Your task to perform on an android device: Play the last video I watched on Youtube Image 0: 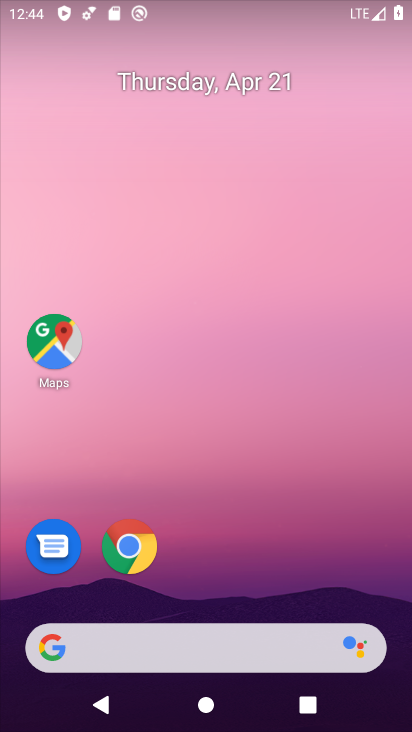
Step 0: drag from (310, 557) to (347, 151)
Your task to perform on an android device: Play the last video I watched on Youtube Image 1: 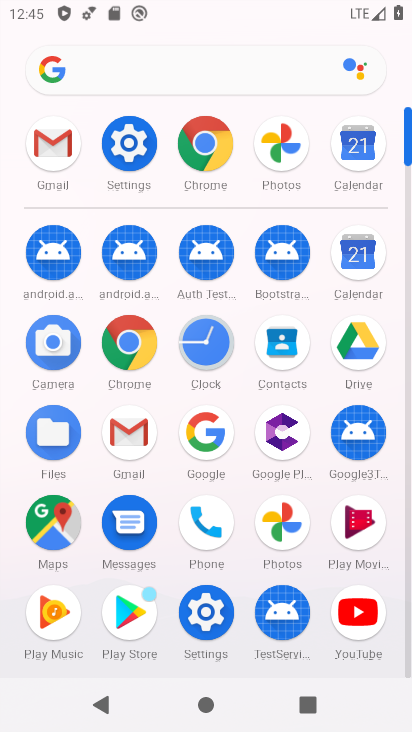
Step 1: click (371, 630)
Your task to perform on an android device: Play the last video I watched on Youtube Image 2: 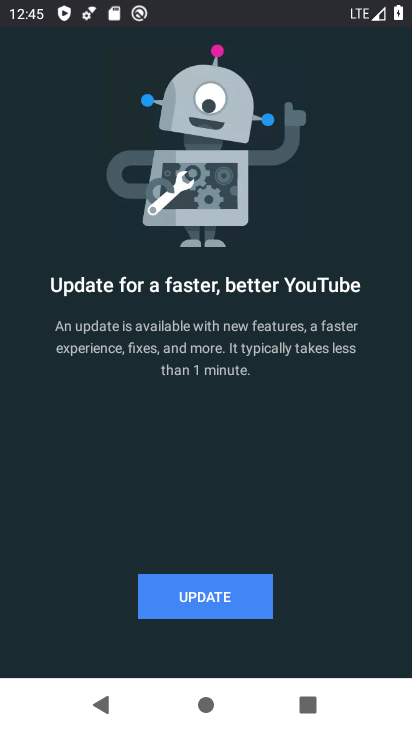
Step 2: click (244, 603)
Your task to perform on an android device: Play the last video I watched on Youtube Image 3: 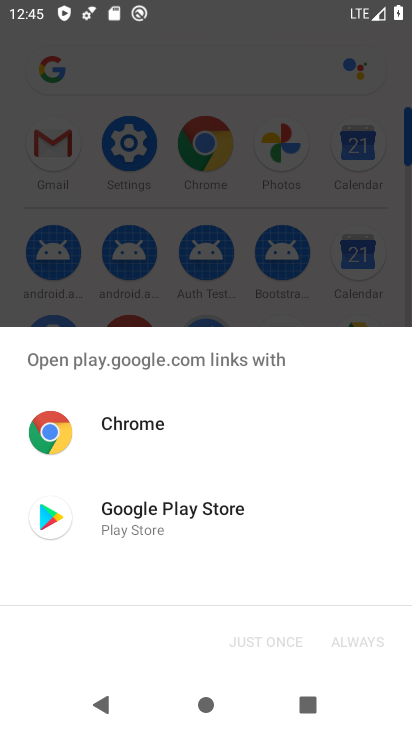
Step 3: click (97, 526)
Your task to perform on an android device: Play the last video I watched on Youtube Image 4: 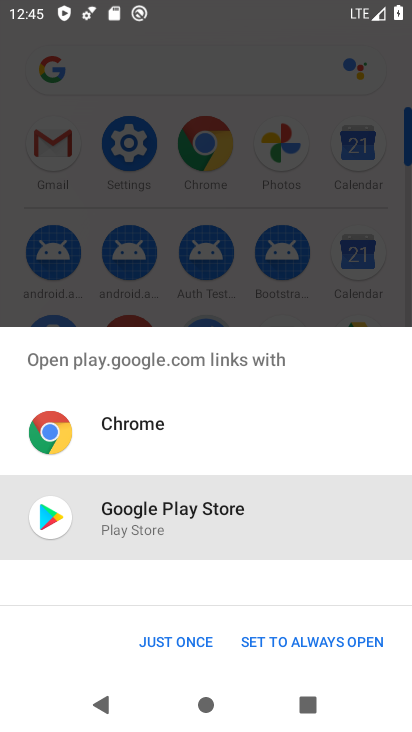
Step 4: click (165, 643)
Your task to perform on an android device: Play the last video I watched on Youtube Image 5: 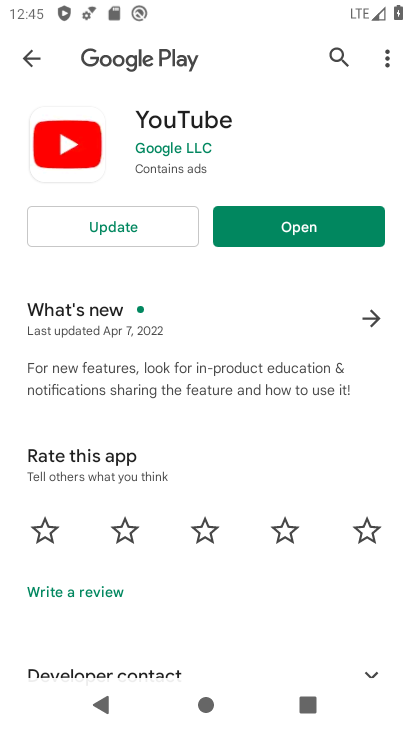
Step 5: click (121, 230)
Your task to perform on an android device: Play the last video I watched on Youtube Image 6: 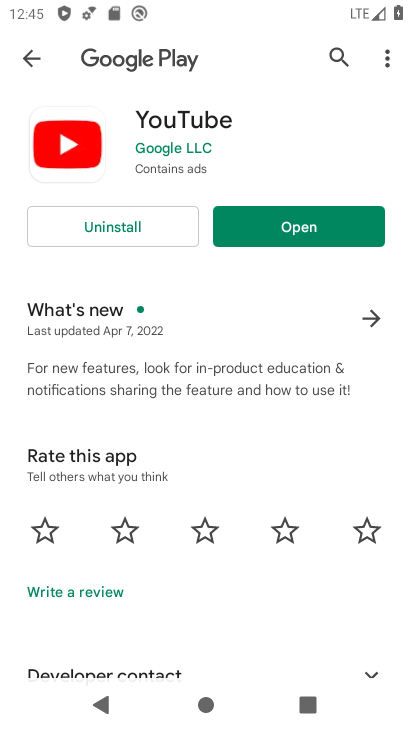
Step 6: click (276, 236)
Your task to perform on an android device: Play the last video I watched on Youtube Image 7: 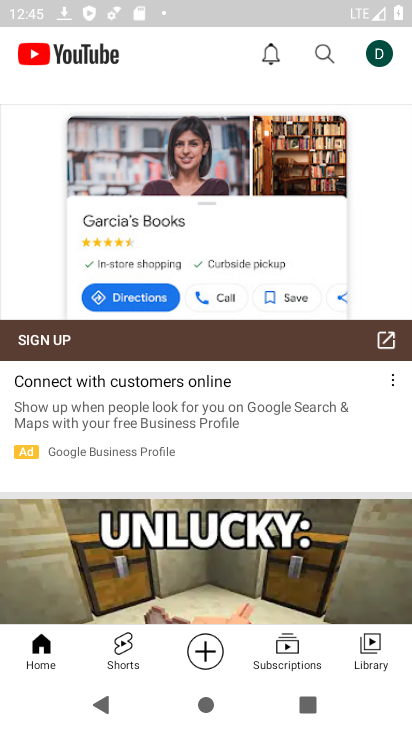
Step 7: click (380, 654)
Your task to perform on an android device: Play the last video I watched on Youtube Image 8: 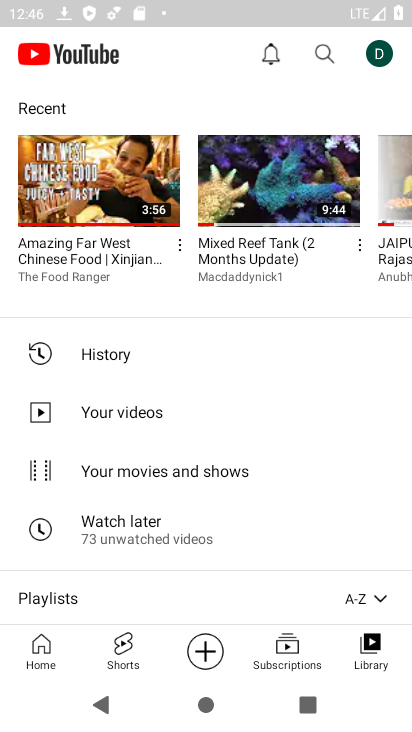
Step 8: click (105, 181)
Your task to perform on an android device: Play the last video I watched on Youtube Image 9: 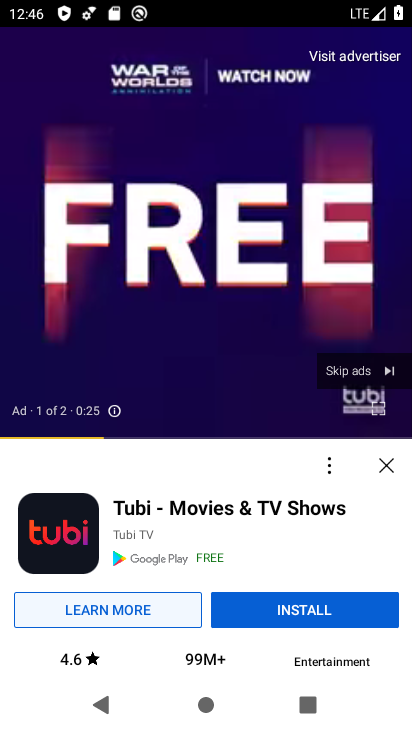
Step 9: task complete